Your task to perform on an android device: make emails show in primary in the gmail app Image 0: 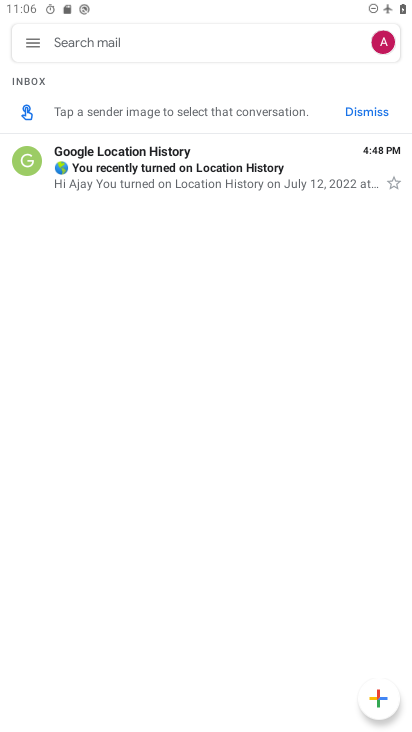
Step 0: click (23, 35)
Your task to perform on an android device: make emails show in primary in the gmail app Image 1: 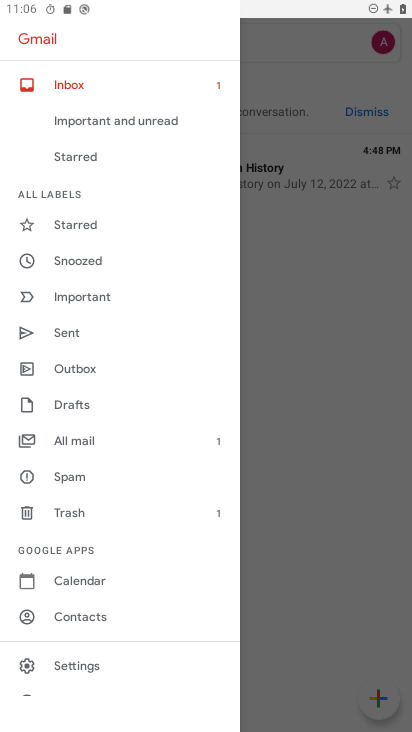
Step 1: click (76, 666)
Your task to perform on an android device: make emails show in primary in the gmail app Image 2: 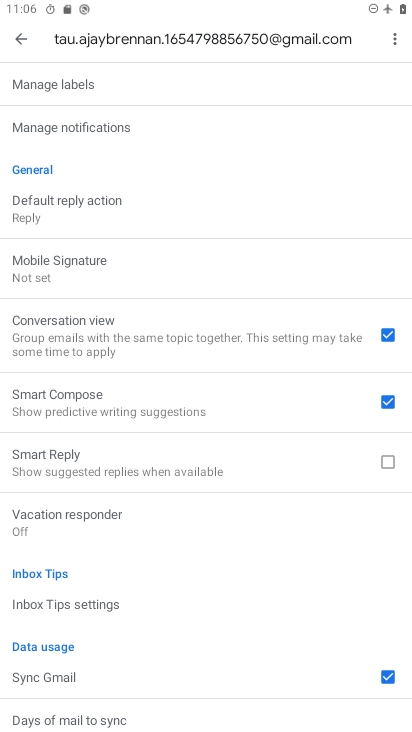
Step 2: drag from (158, 201) to (158, 541)
Your task to perform on an android device: make emails show in primary in the gmail app Image 3: 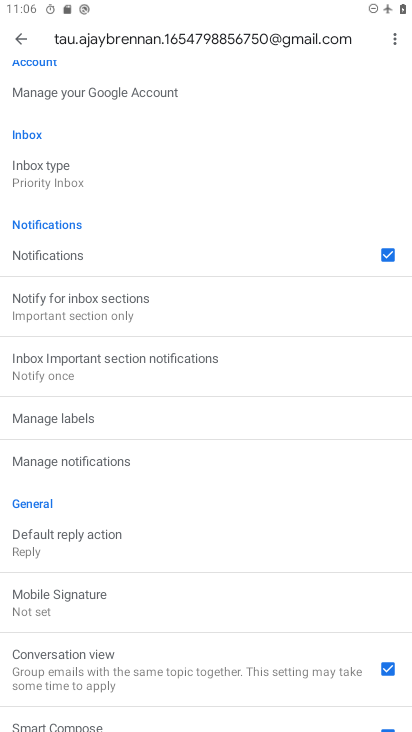
Step 3: click (91, 181)
Your task to perform on an android device: make emails show in primary in the gmail app Image 4: 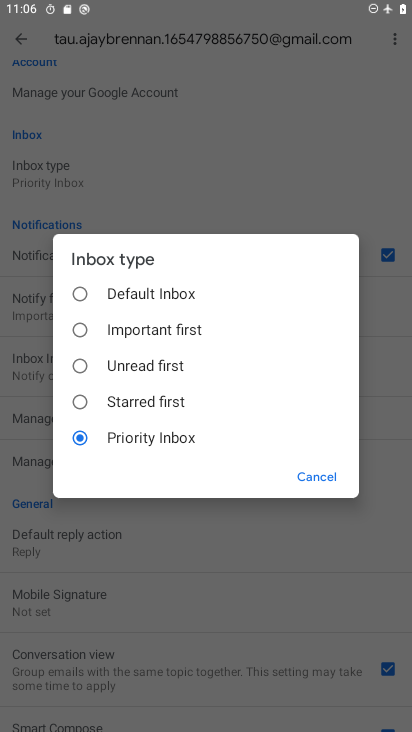
Step 4: click (169, 306)
Your task to perform on an android device: make emails show in primary in the gmail app Image 5: 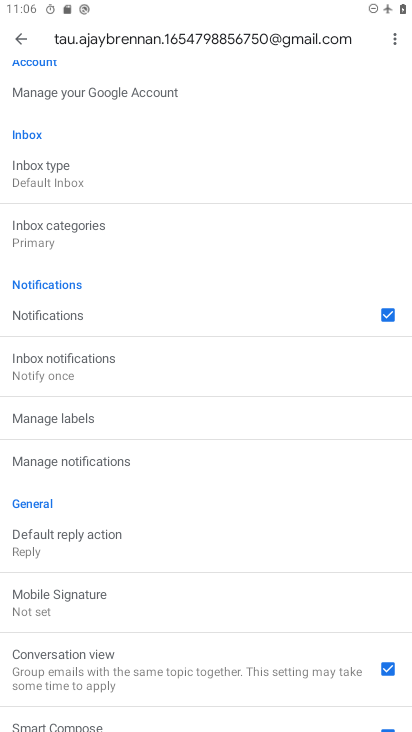
Step 5: task complete